Your task to perform on an android device: Go to sound settings Image 0: 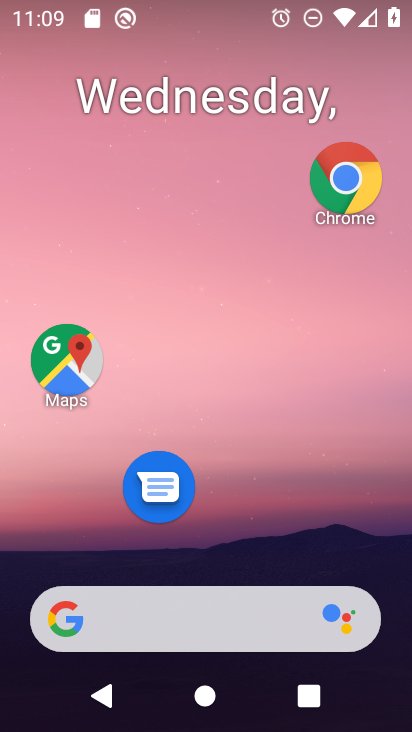
Step 0: drag from (197, 689) to (294, 50)
Your task to perform on an android device: Go to sound settings Image 1: 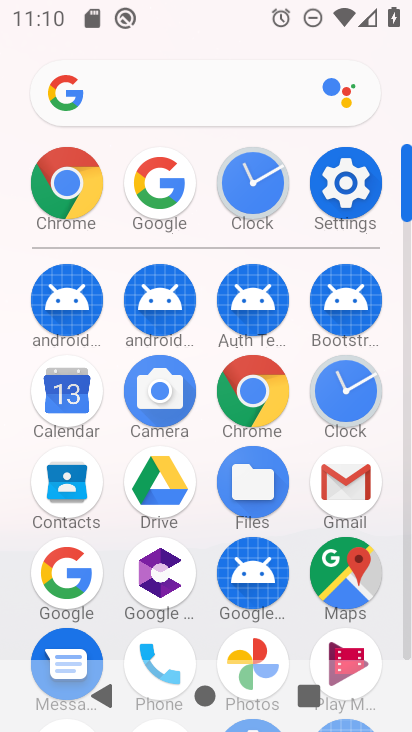
Step 1: click (348, 191)
Your task to perform on an android device: Go to sound settings Image 2: 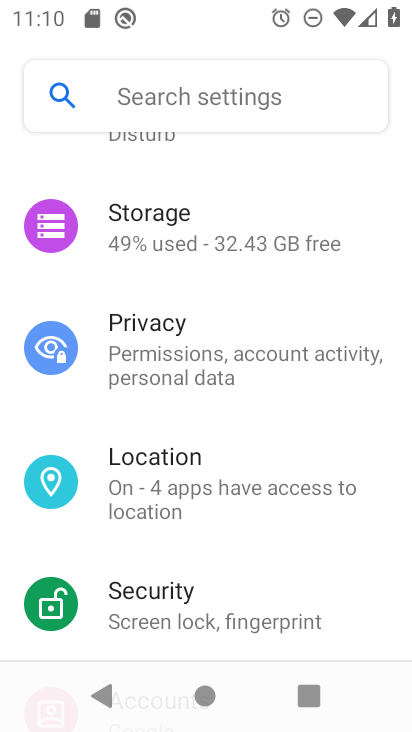
Step 2: drag from (235, 538) to (259, 197)
Your task to perform on an android device: Go to sound settings Image 3: 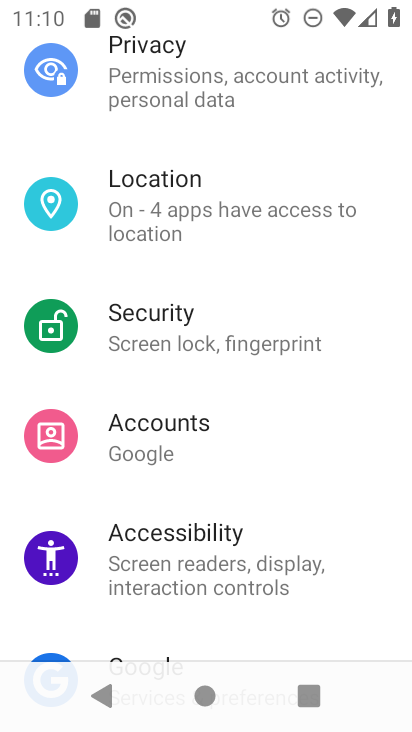
Step 3: drag from (192, 527) to (256, 145)
Your task to perform on an android device: Go to sound settings Image 4: 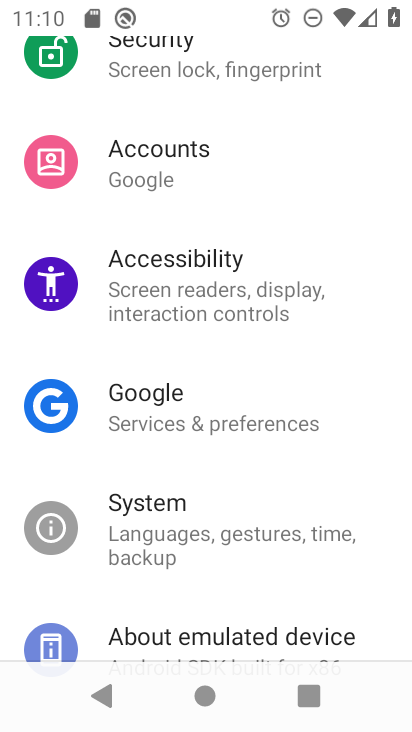
Step 4: drag from (223, 238) to (191, 722)
Your task to perform on an android device: Go to sound settings Image 5: 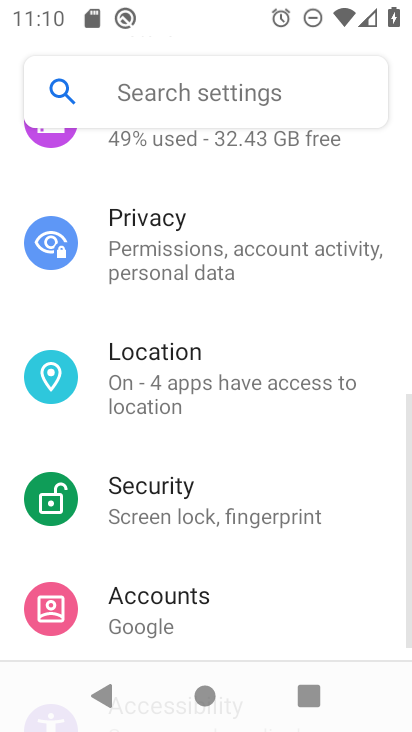
Step 5: drag from (225, 334) to (192, 648)
Your task to perform on an android device: Go to sound settings Image 6: 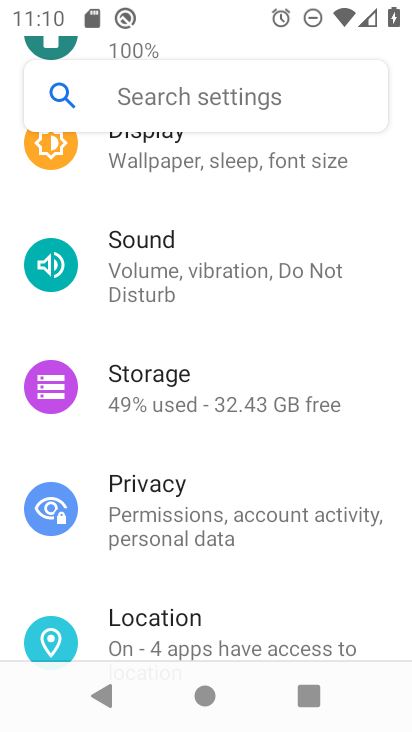
Step 6: click (211, 289)
Your task to perform on an android device: Go to sound settings Image 7: 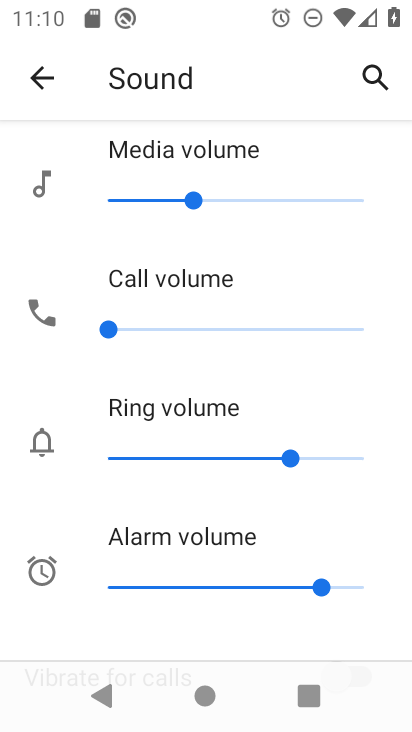
Step 7: task complete